Your task to perform on an android device: Search for sushi restaurants on Maps Image 0: 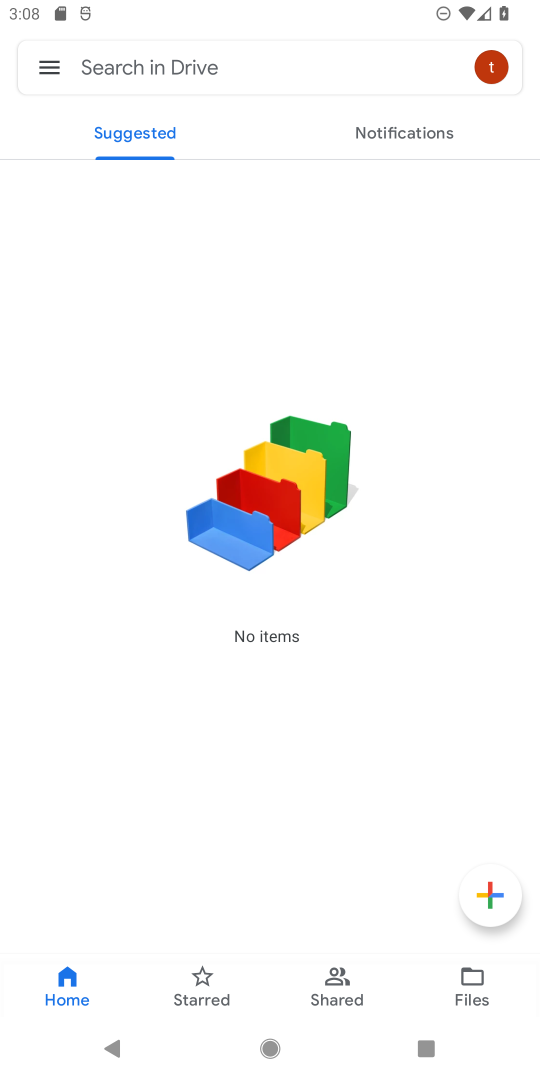
Step 0: press home button
Your task to perform on an android device: Search for sushi restaurants on Maps Image 1: 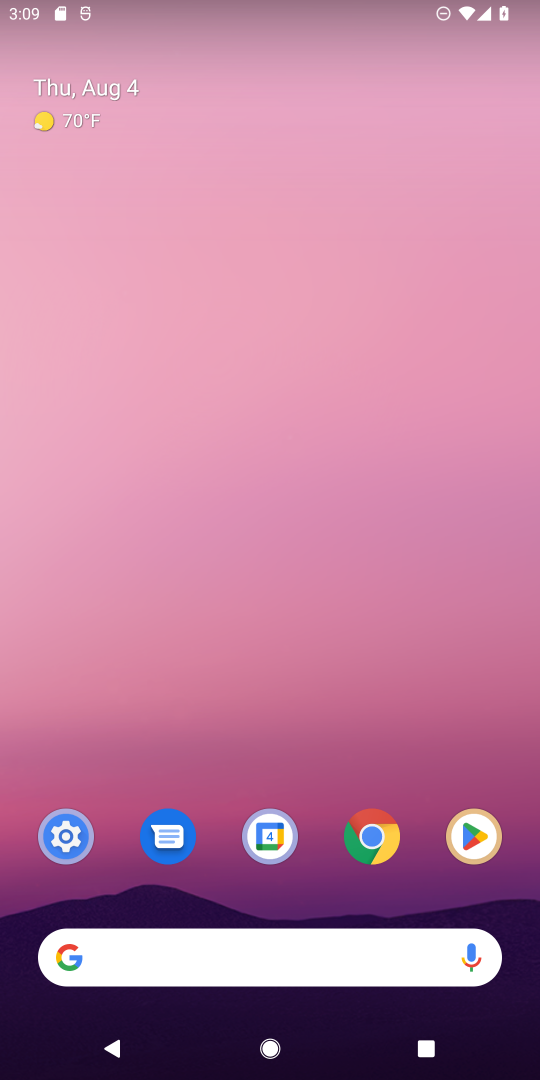
Step 1: drag from (327, 747) to (301, 373)
Your task to perform on an android device: Search for sushi restaurants on Maps Image 2: 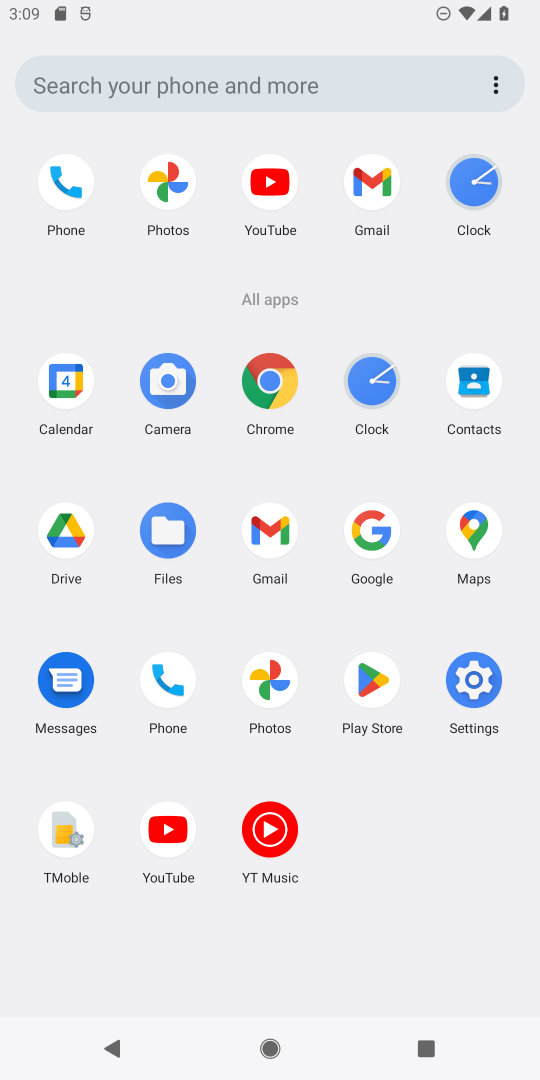
Step 2: click (485, 538)
Your task to perform on an android device: Search for sushi restaurants on Maps Image 3: 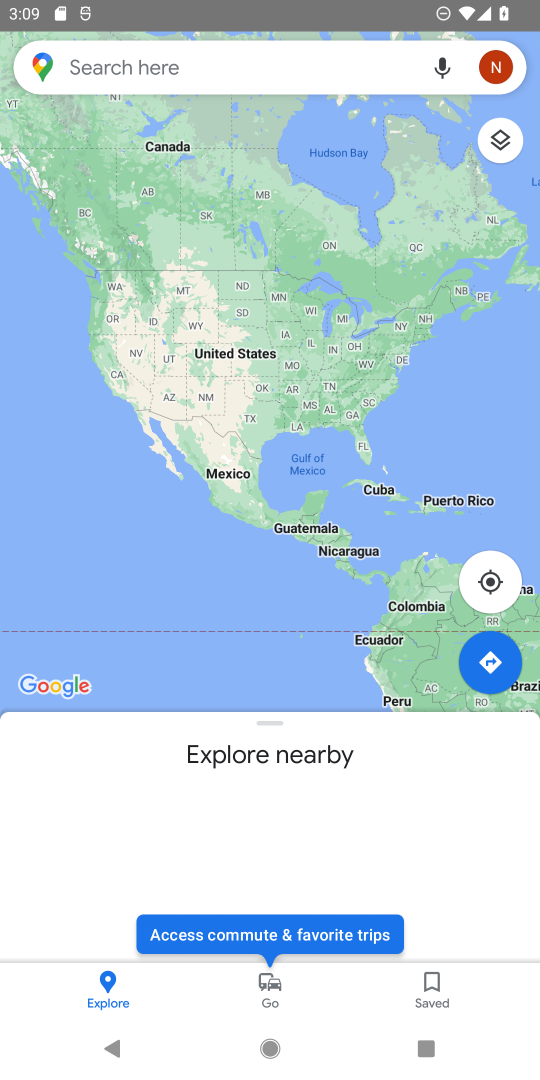
Step 3: click (199, 51)
Your task to perform on an android device: Search for sushi restaurants on Maps Image 4: 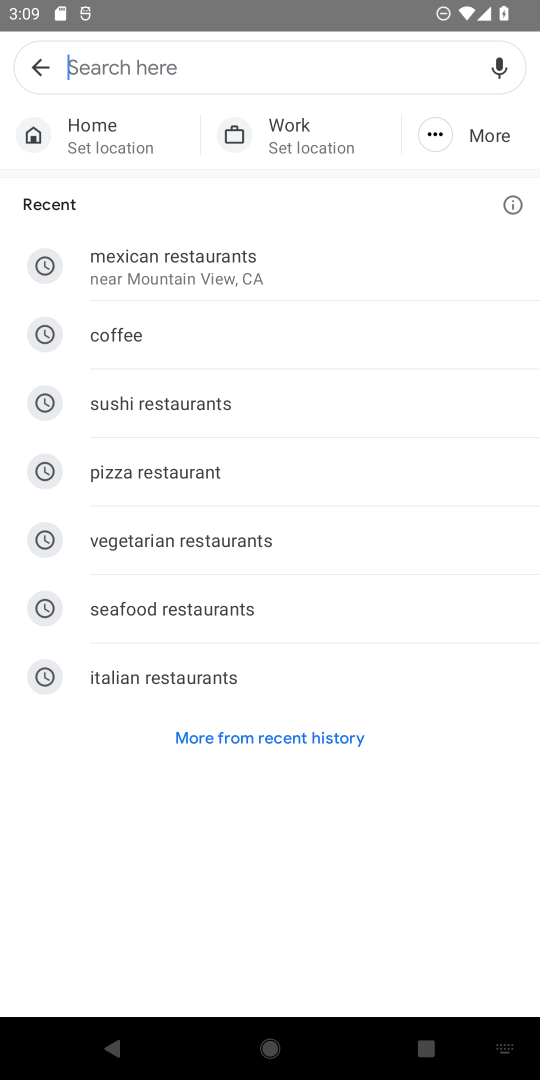
Step 4: type "s"
Your task to perform on an android device: Search for sushi restaurants on Maps Image 5: 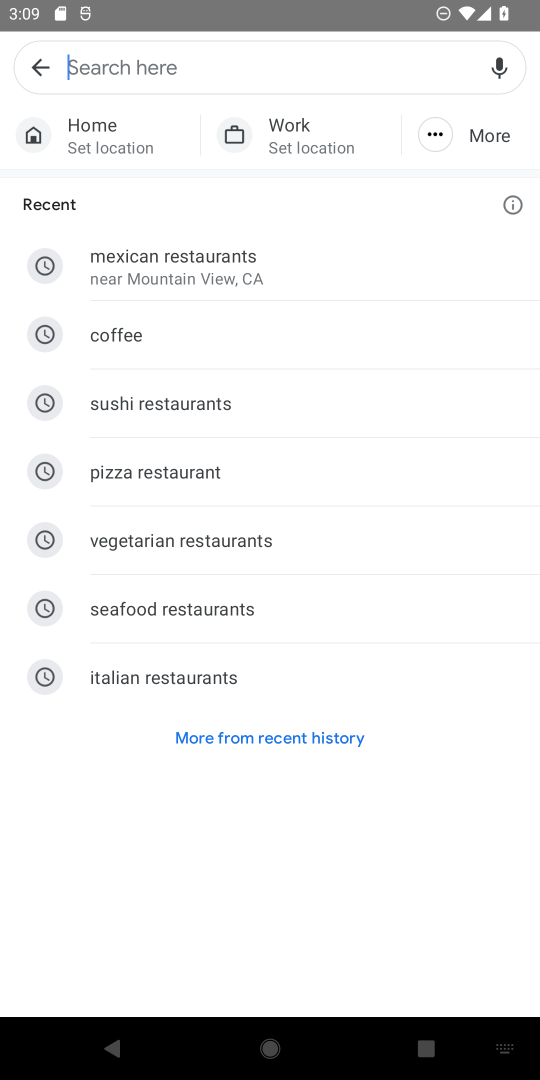
Step 5: click (253, 383)
Your task to perform on an android device: Search for sushi restaurants on Maps Image 6: 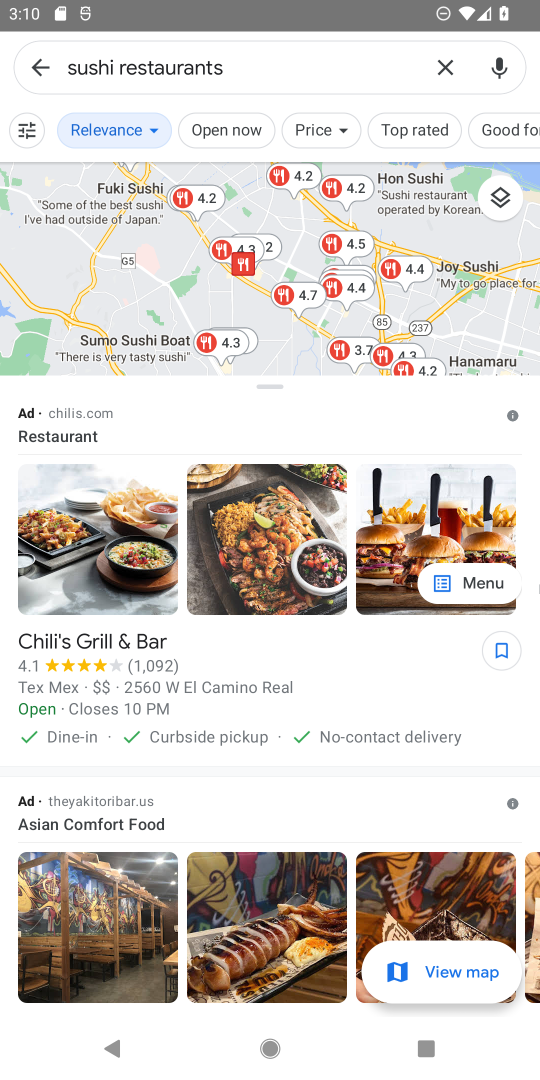
Step 6: task complete